Your task to perform on an android device: toggle javascript in the chrome app Image 0: 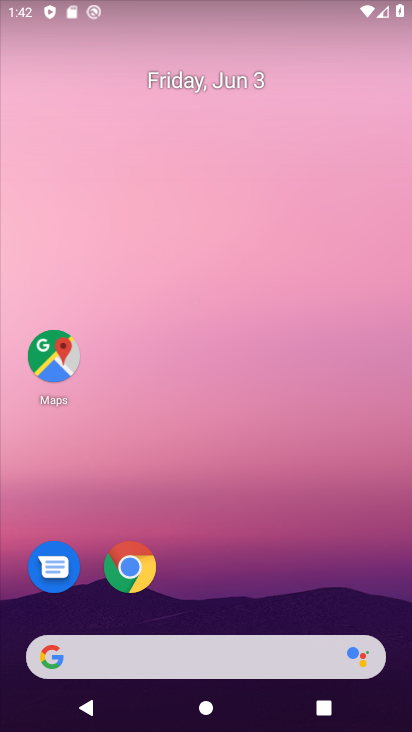
Step 0: click (128, 566)
Your task to perform on an android device: toggle javascript in the chrome app Image 1: 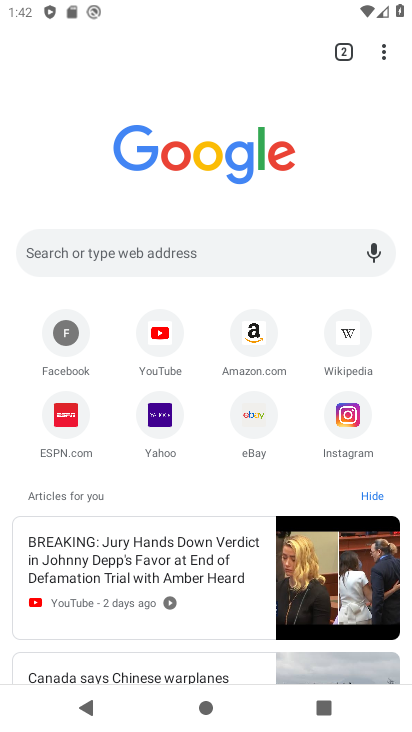
Step 1: drag from (379, 53) to (206, 433)
Your task to perform on an android device: toggle javascript in the chrome app Image 2: 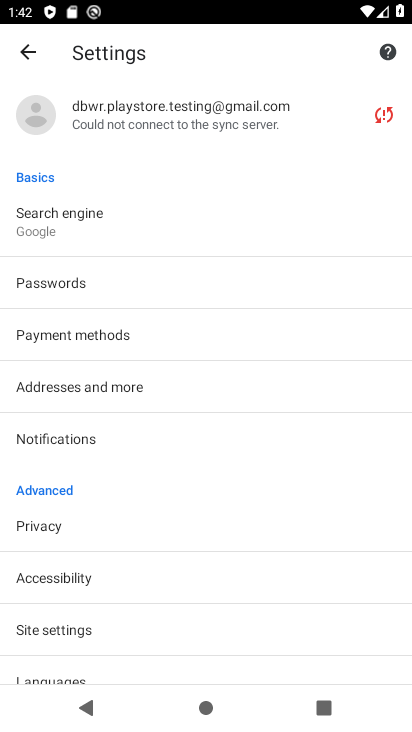
Step 2: click (73, 632)
Your task to perform on an android device: toggle javascript in the chrome app Image 3: 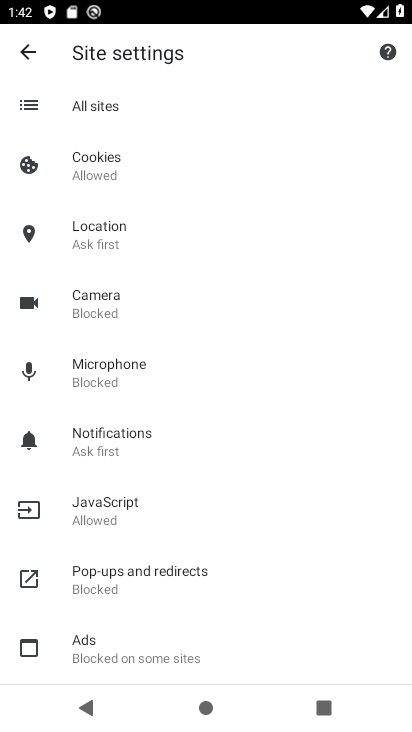
Step 3: click (93, 523)
Your task to perform on an android device: toggle javascript in the chrome app Image 4: 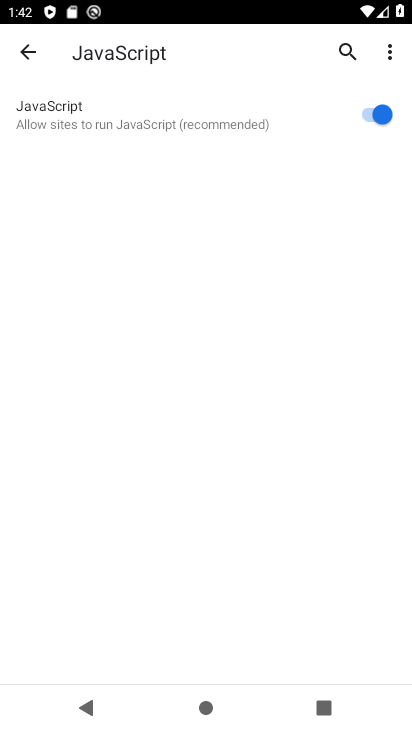
Step 4: click (367, 110)
Your task to perform on an android device: toggle javascript in the chrome app Image 5: 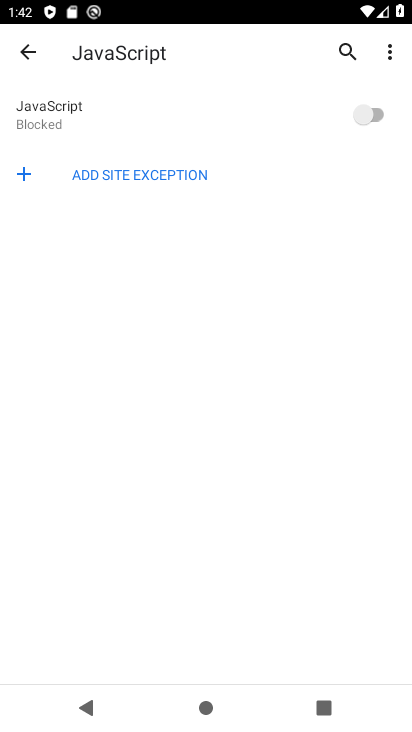
Step 5: task complete